Your task to perform on an android device: Go to display settings Image 0: 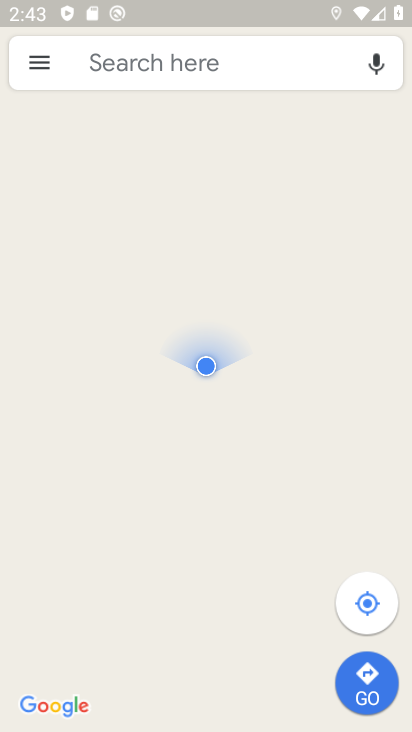
Step 0: press back button
Your task to perform on an android device: Go to display settings Image 1: 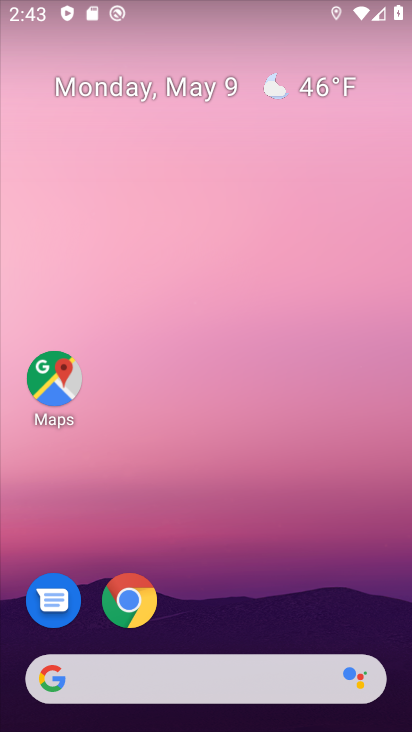
Step 1: drag from (252, 652) to (306, 456)
Your task to perform on an android device: Go to display settings Image 2: 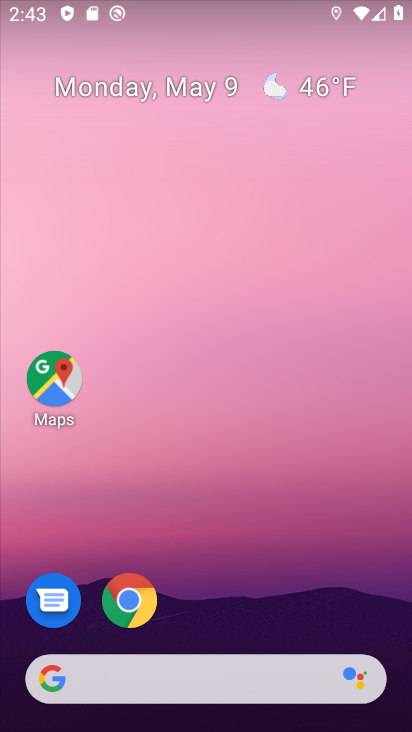
Step 2: drag from (232, 636) to (234, 371)
Your task to perform on an android device: Go to display settings Image 3: 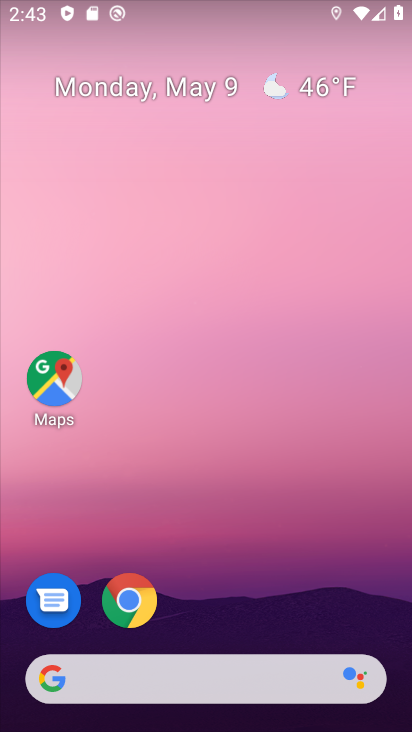
Step 3: drag from (230, 638) to (282, 36)
Your task to perform on an android device: Go to display settings Image 4: 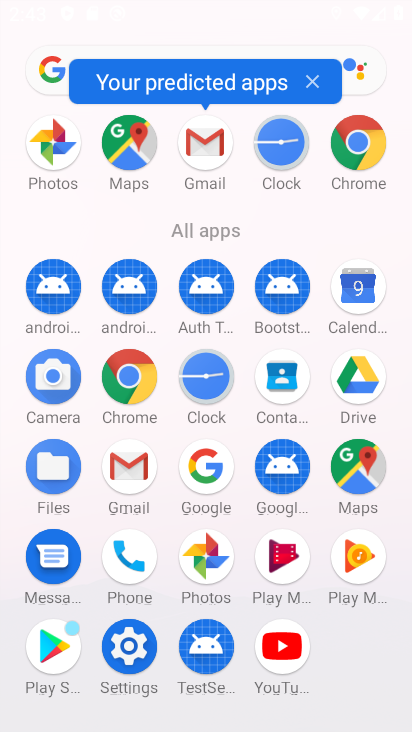
Step 4: click (117, 644)
Your task to perform on an android device: Go to display settings Image 5: 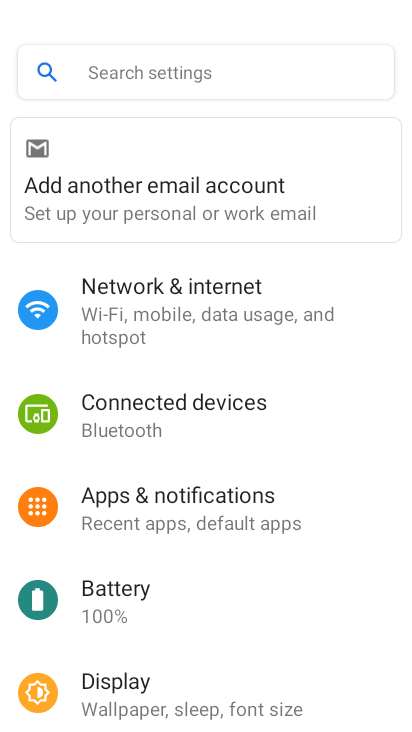
Step 5: click (147, 694)
Your task to perform on an android device: Go to display settings Image 6: 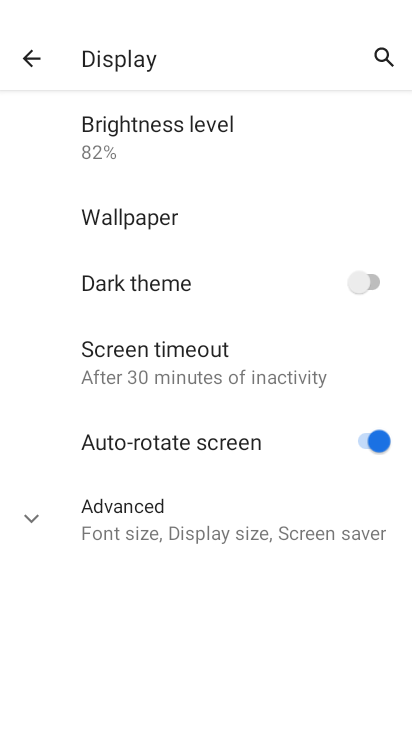
Step 6: click (195, 505)
Your task to perform on an android device: Go to display settings Image 7: 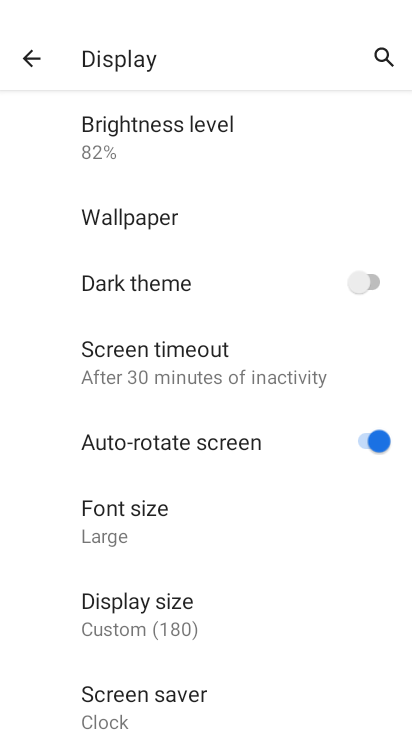
Step 7: task complete